Your task to perform on an android device: turn off notifications settings in the gmail app Image 0: 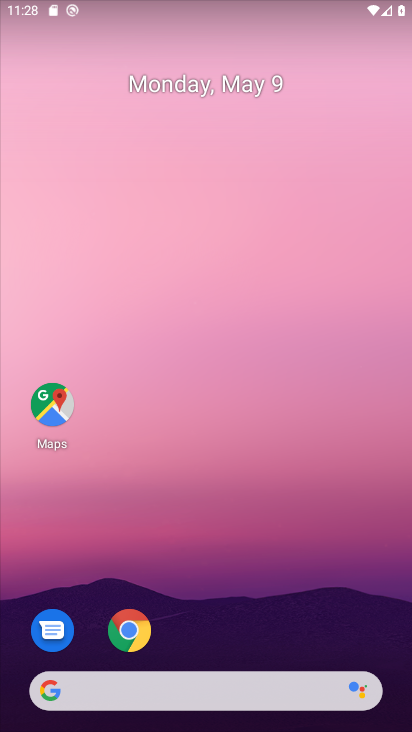
Step 0: drag from (210, 635) to (58, 71)
Your task to perform on an android device: turn off notifications settings in the gmail app Image 1: 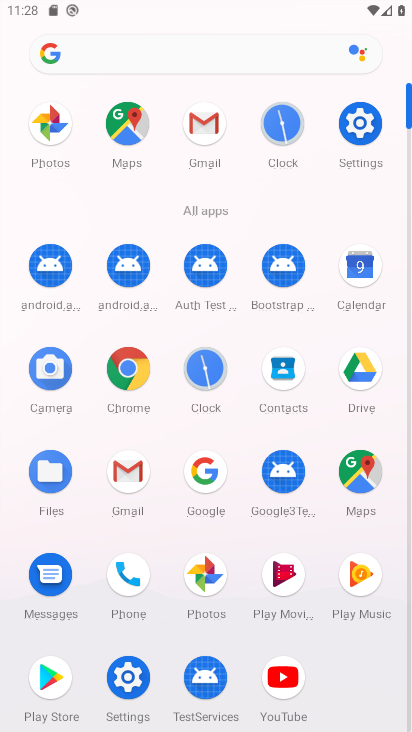
Step 1: click (122, 476)
Your task to perform on an android device: turn off notifications settings in the gmail app Image 2: 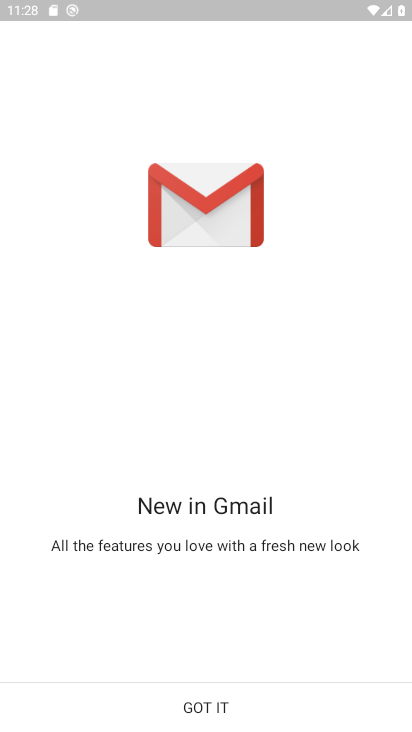
Step 2: click (210, 704)
Your task to perform on an android device: turn off notifications settings in the gmail app Image 3: 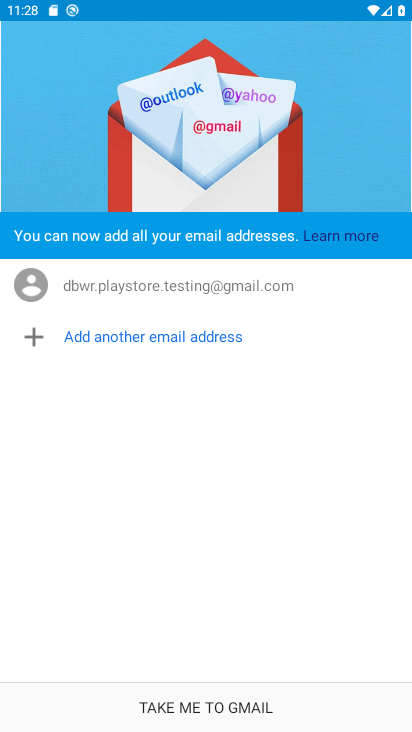
Step 3: click (205, 696)
Your task to perform on an android device: turn off notifications settings in the gmail app Image 4: 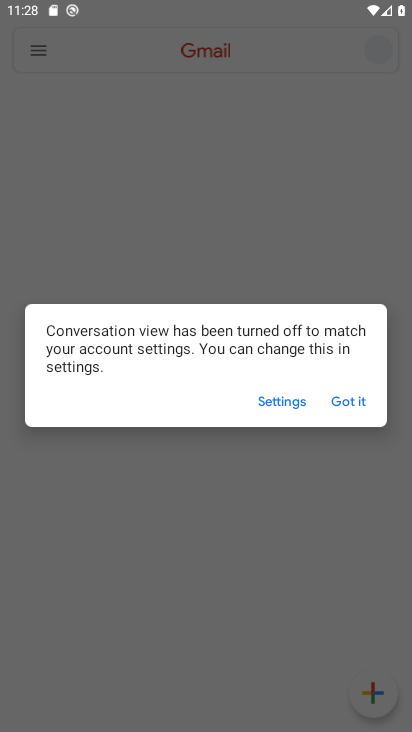
Step 4: click (345, 404)
Your task to perform on an android device: turn off notifications settings in the gmail app Image 5: 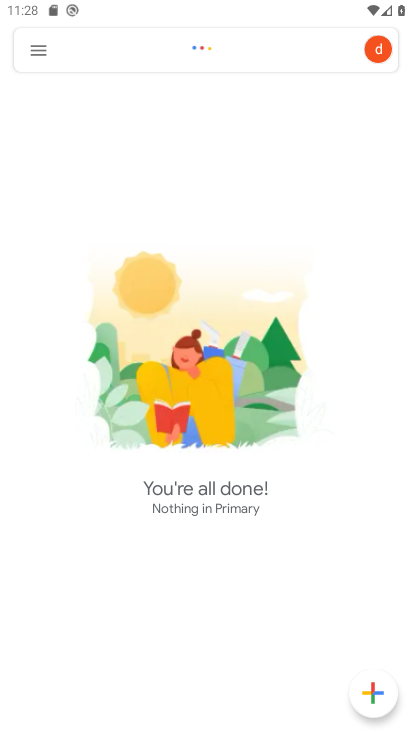
Step 5: click (44, 52)
Your task to perform on an android device: turn off notifications settings in the gmail app Image 6: 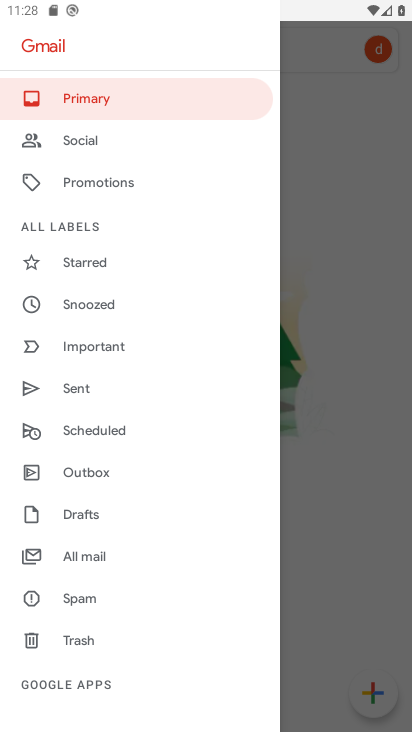
Step 6: drag from (108, 682) to (106, 370)
Your task to perform on an android device: turn off notifications settings in the gmail app Image 7: 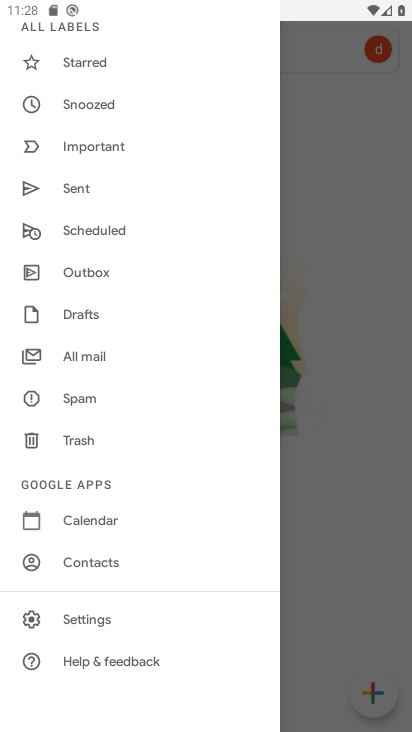
Step 7: click (90, 616)
Your task to perform on an android device: turn off notifications settings in the gmail app Image 8: 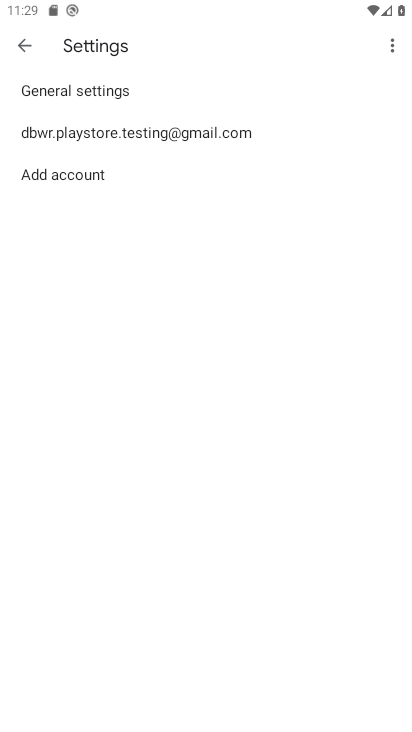
Step 8: click (135, 130)
Your task to perform on an android device: turn off notifications settings in the gmail app Image 9: 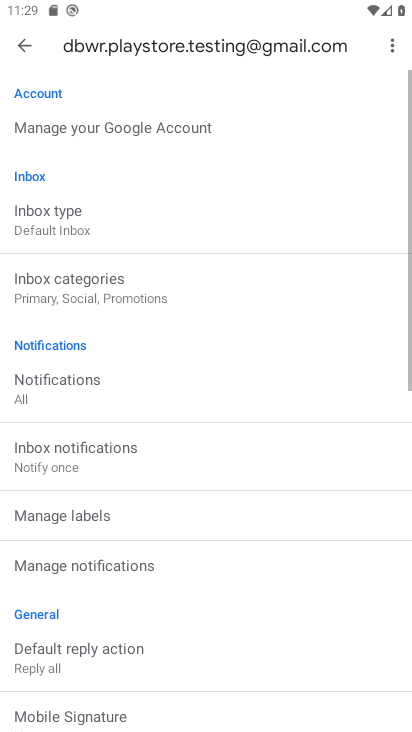
Step 9: click (113, 567)
Your task to perform on an android device: turn off notifications settings in the gmail app Image 10: 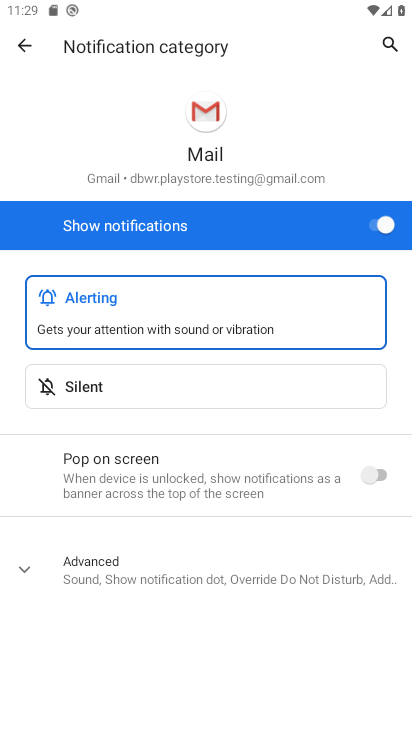
Step 10: click (382, 228)
Your task to perform on an android device: turn off notifications settings in the gmail app Image 11: 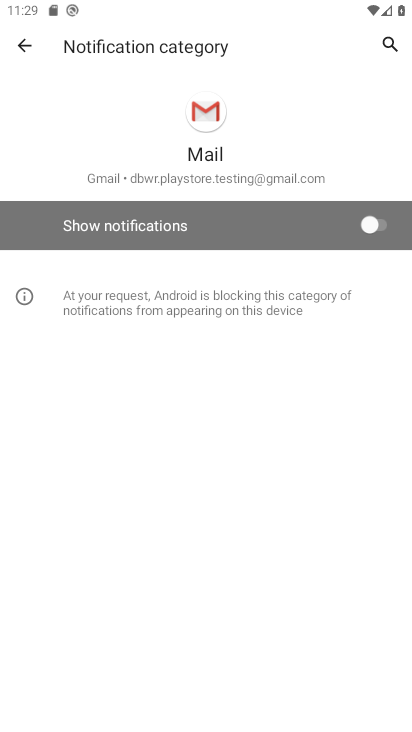
Step 11: task complete